Your task to perform on an android device: Open the stopwatch Image 0: 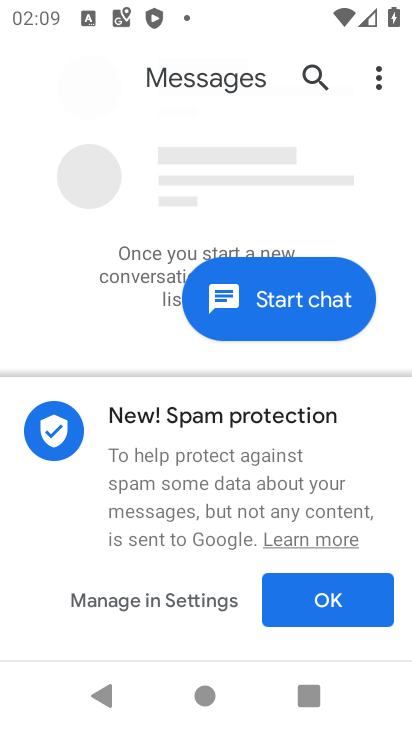
Step 0: press home button
Your task to perform on an android device: Open the stopwatch Image 1: 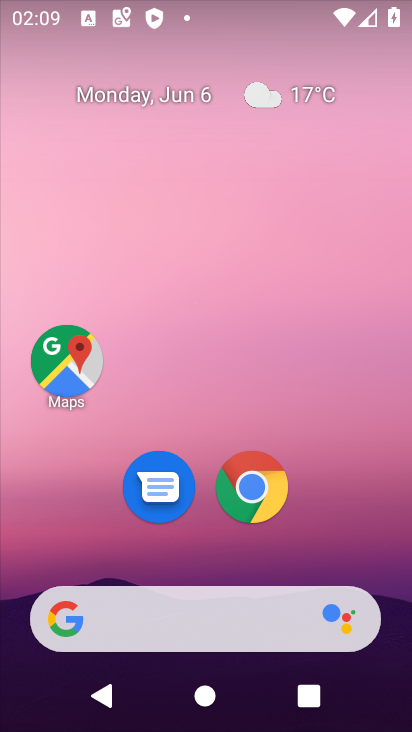
Step 1: drag from (401, 624) to (357, 128)
Your task to perform on an android device: Open the stopwatch Image 2: 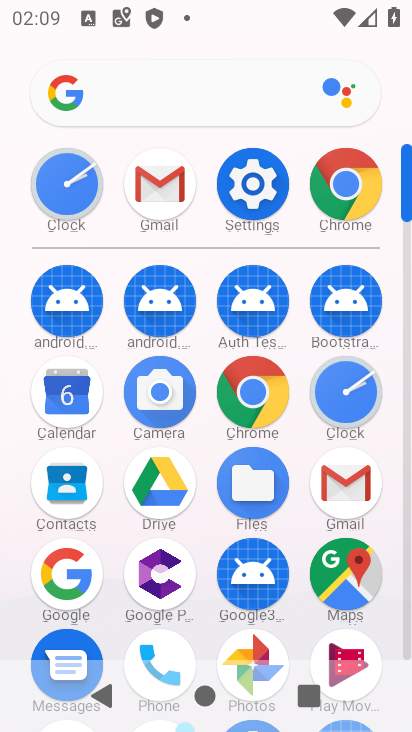
Step 2: click (345, 388)
Your task to perform on an android device: Open the stopwatch Image 3: 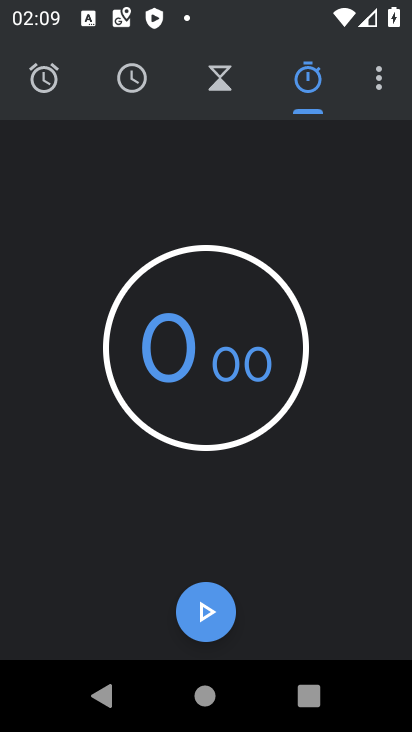
Step 3: task complete